Your task to perform on an android device: open wifi settings Image 0: 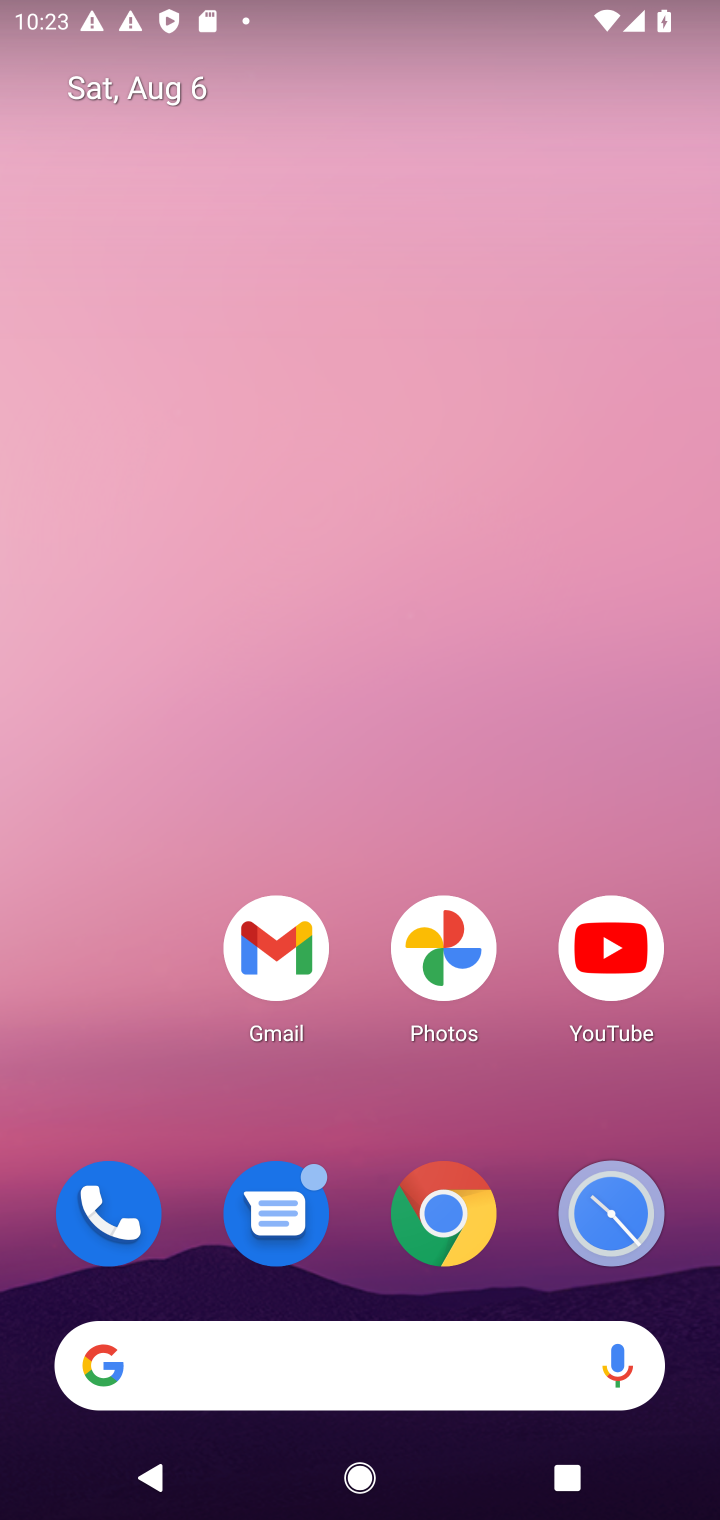
Step 0: drag from (348, 810) to (317, 254)
Your task to perform on an android device: open wifi settings Image 1: 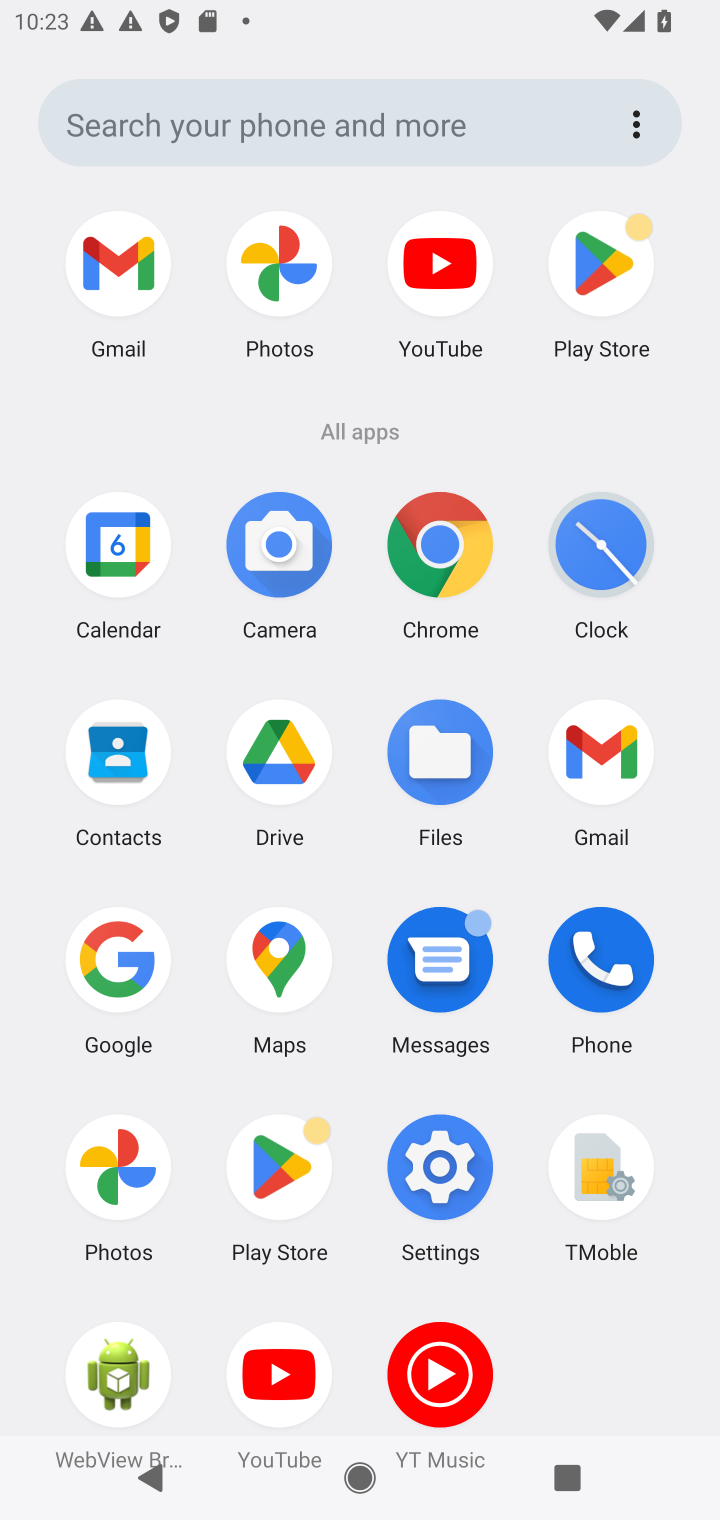
Step 1: click (426, 1166)
Your task to perform on an android device: open wifi settings Image 2: 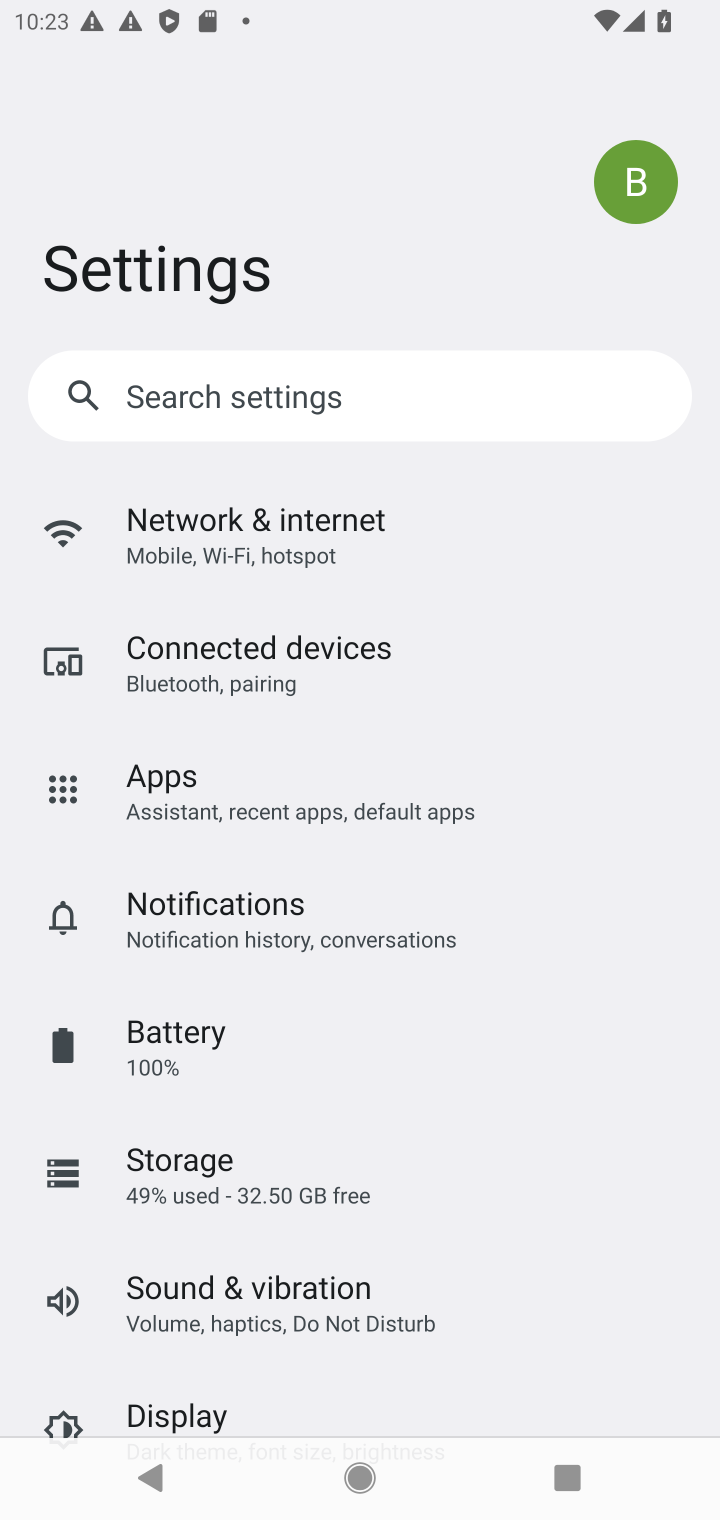
Step 2: click (44, 548)
Your task to perform on an android device: open wifi settings Image 3: 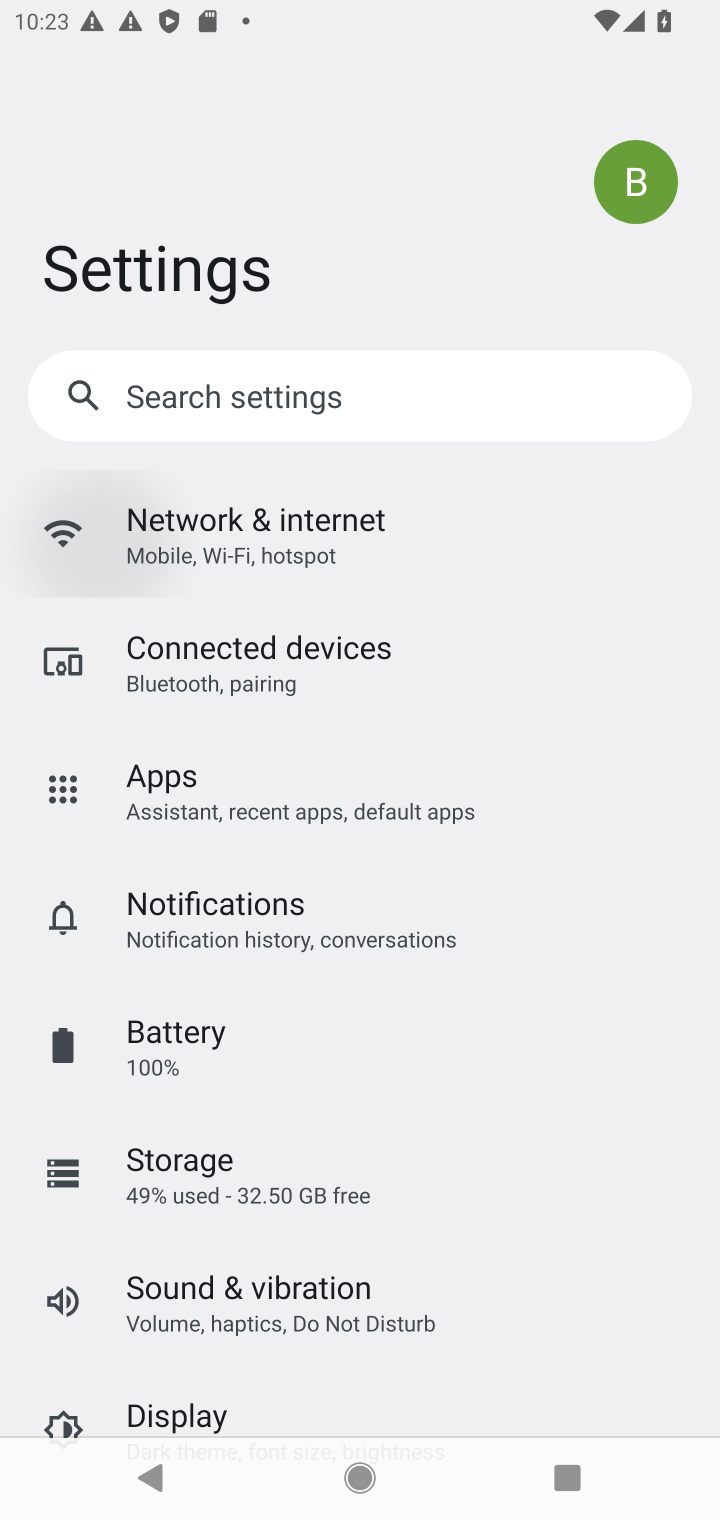
Step 3: click (262, 522)
Your task to perform on an android device: open wifi settings Image 4: 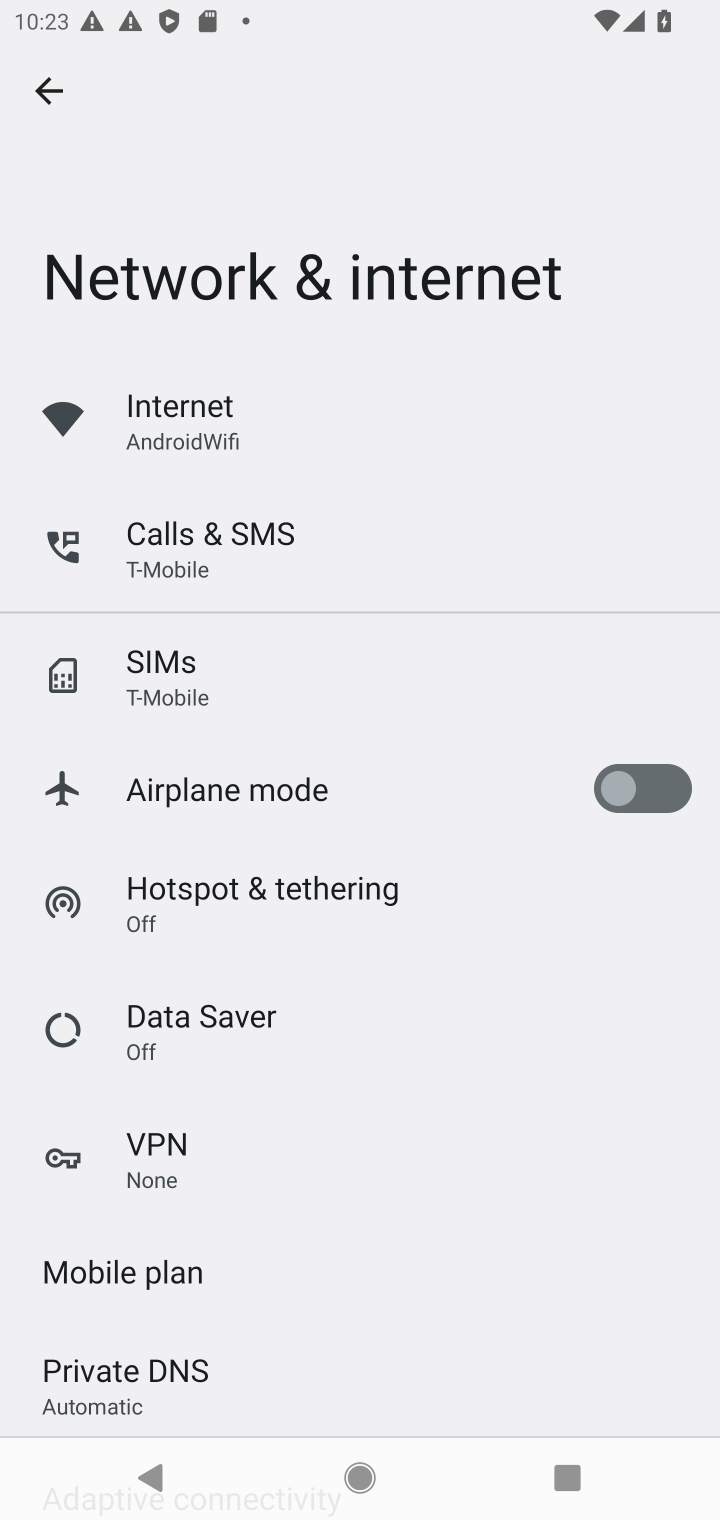
Step 4: task complete